Your task to perform on an android device: Turn on the flashlight Image 0: 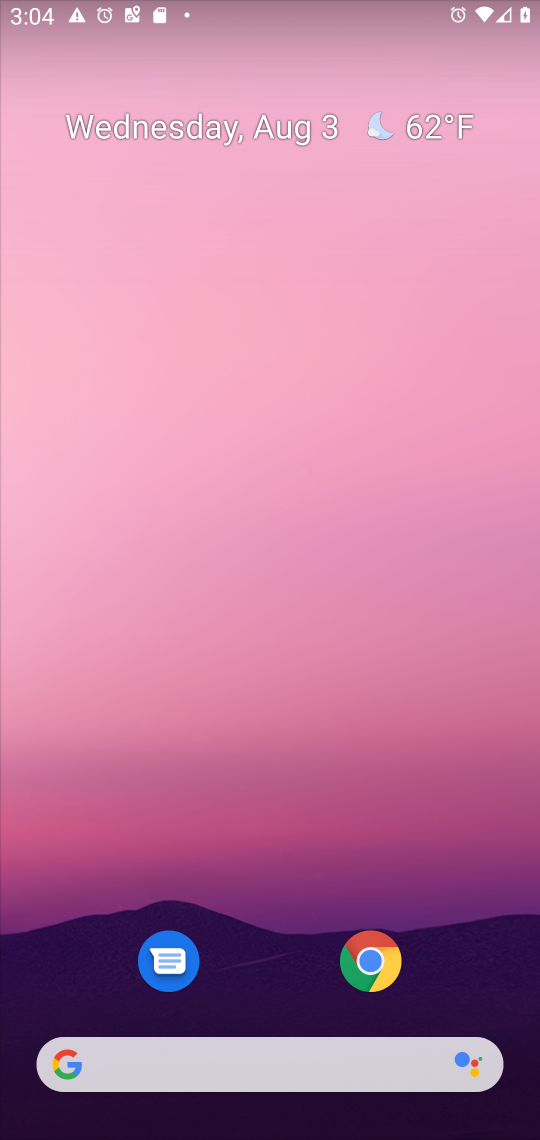
Step 0: drag from (236, 234) to (273, 939)
Your task to perform on an android device: Turn on the flashlight Image 1: 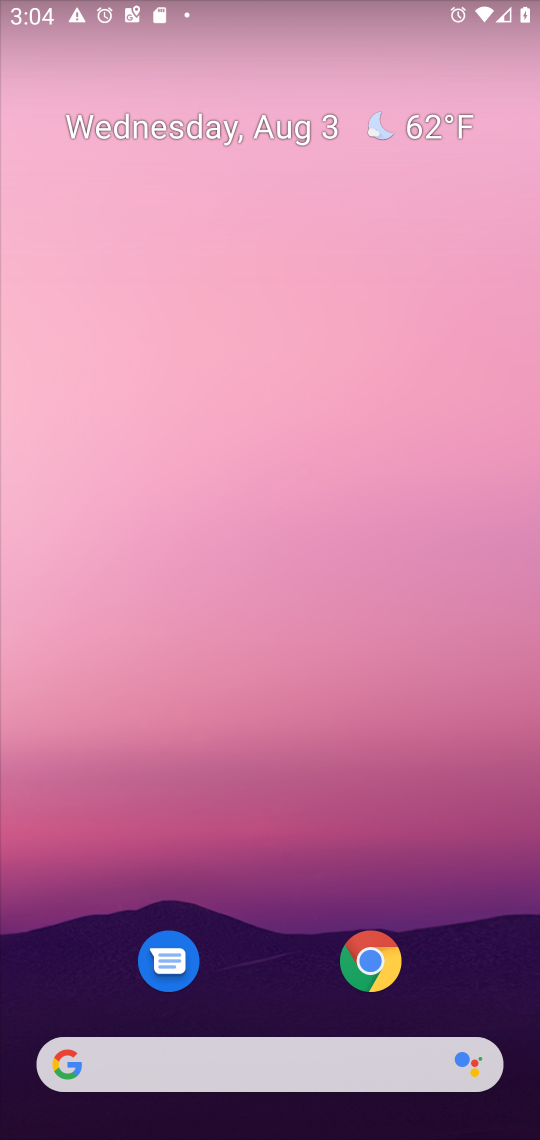
Step 1: task complete